Your task to perform on an android device: refresh tabs in the chrome app Image 0: 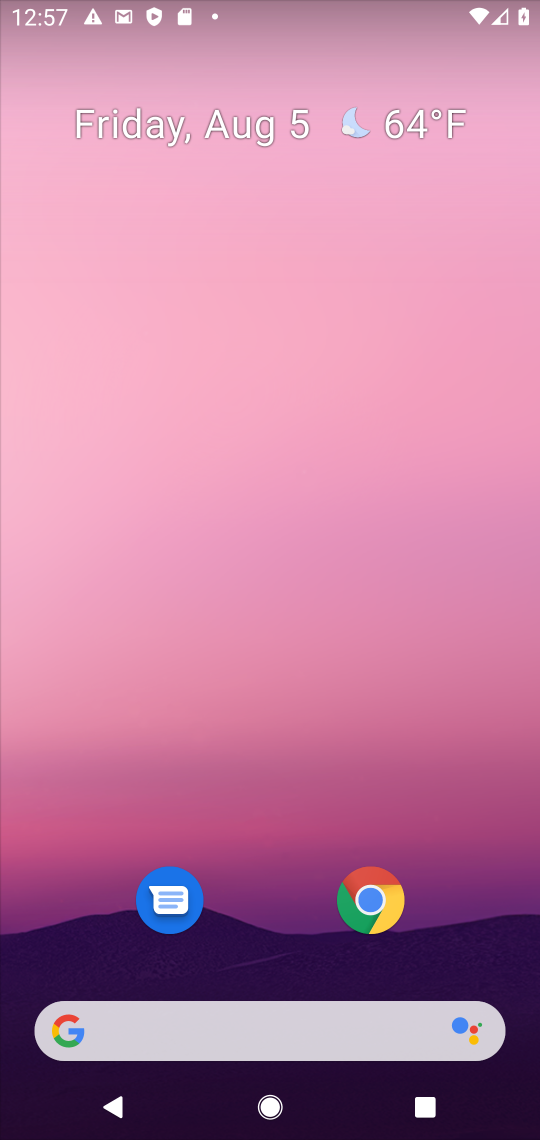
Step 0: press home button
Your task to perform on an android device: refresh tabs in the chrome app Image 1: 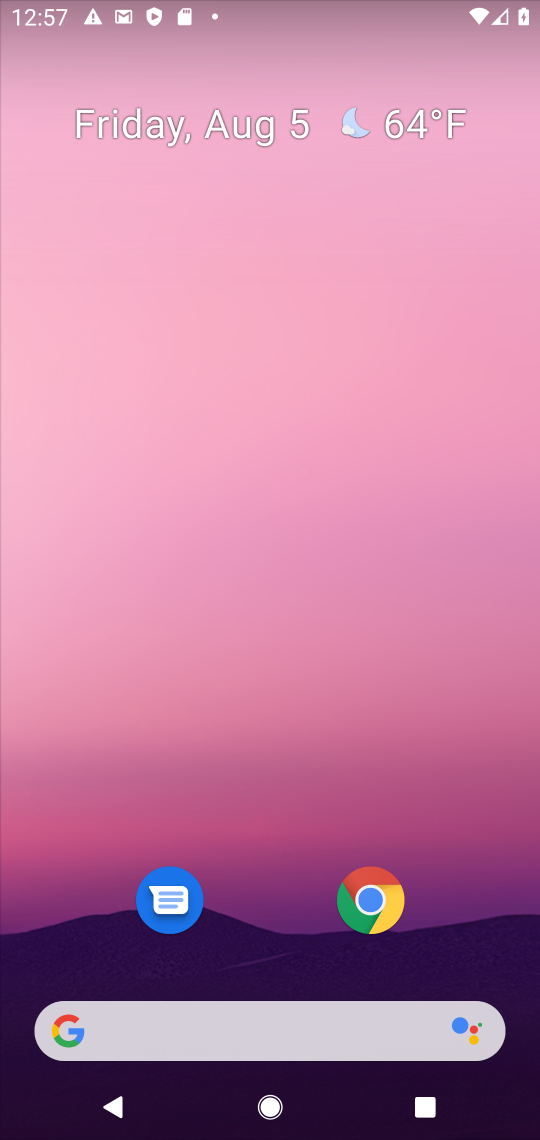
Step 1: drag from (286, 918) to (280, 25)
Your task to perform on an android device: refresh tabs in the chrome app Image 2: 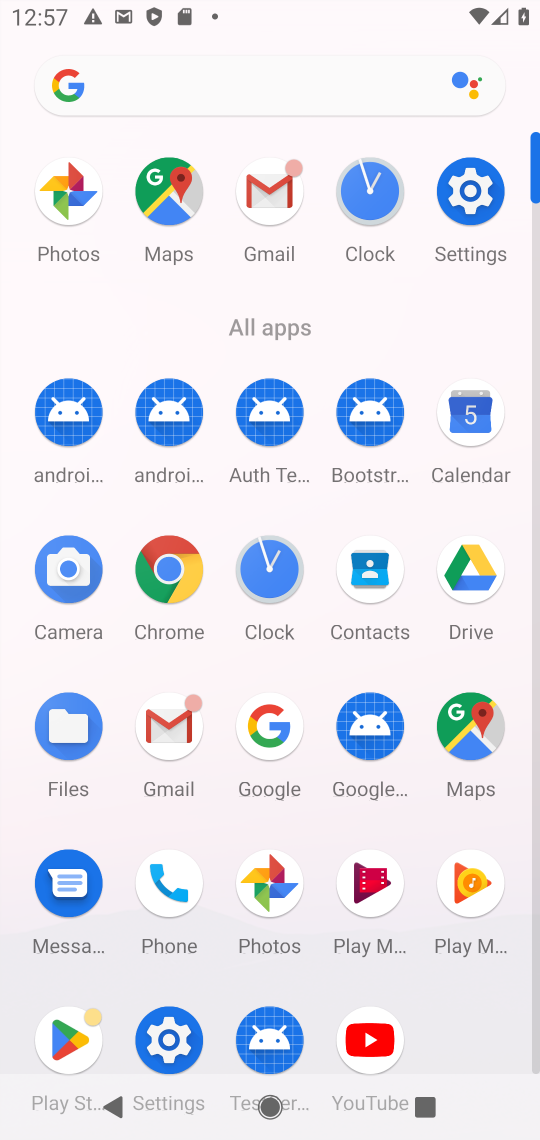
Step 2: click (165, 862)
Your task to perform on an android device: refresh tabs in the chrome app Image 3: 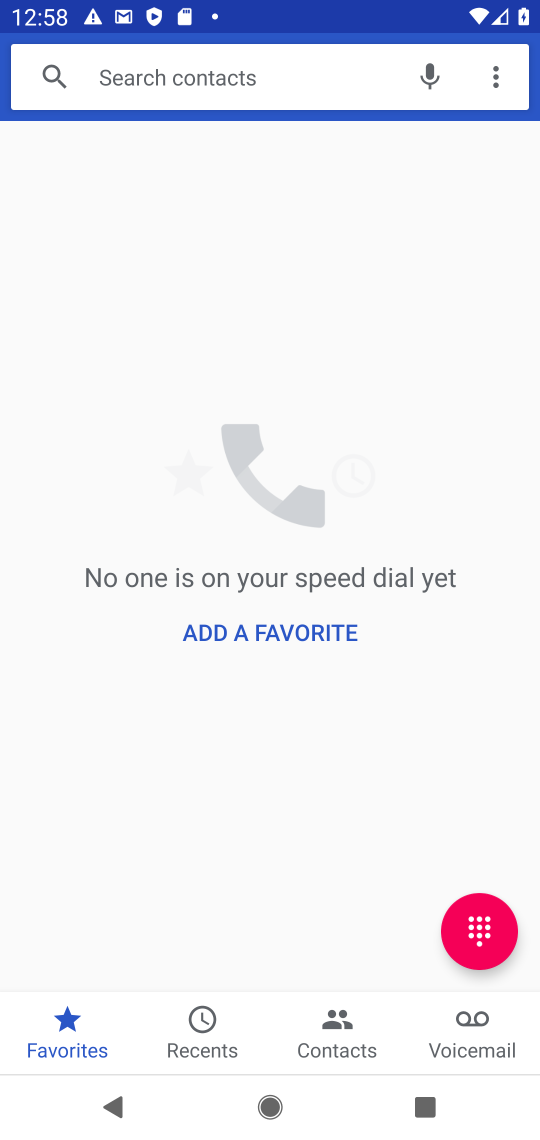
Step 3: press home button
Your task to perform on an android device: refresh tabs in the chrome app Image 4: 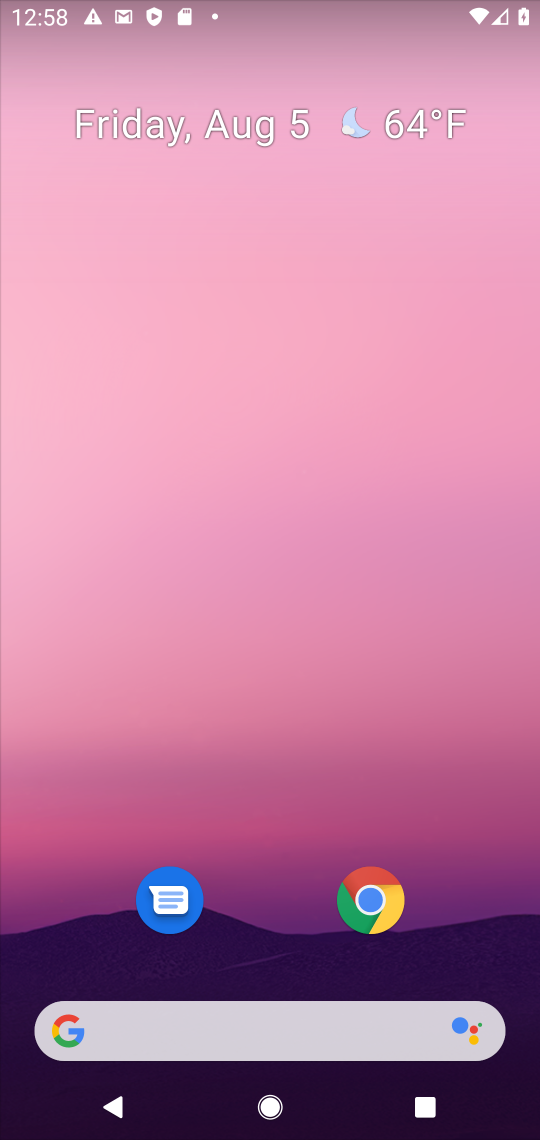
Step 4: drag from (282, 941) to (245, 116)
Your task to perform on an android device: refresh tabs in the chrome app Image 5: 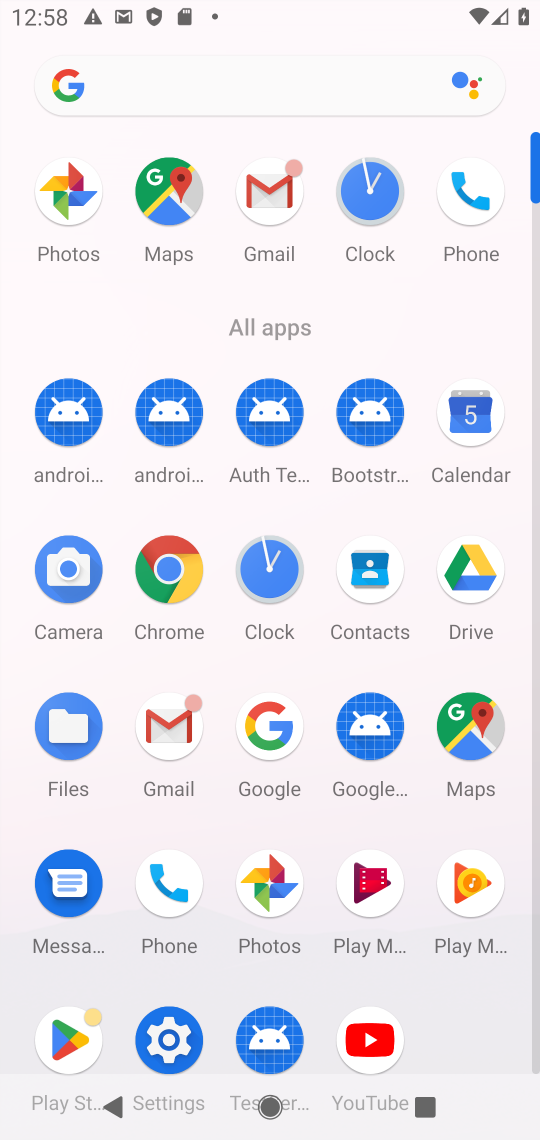
Step 5: click (167, 555)
Your task to perform on an android device: refresh tabs in the chrome app Image 6: 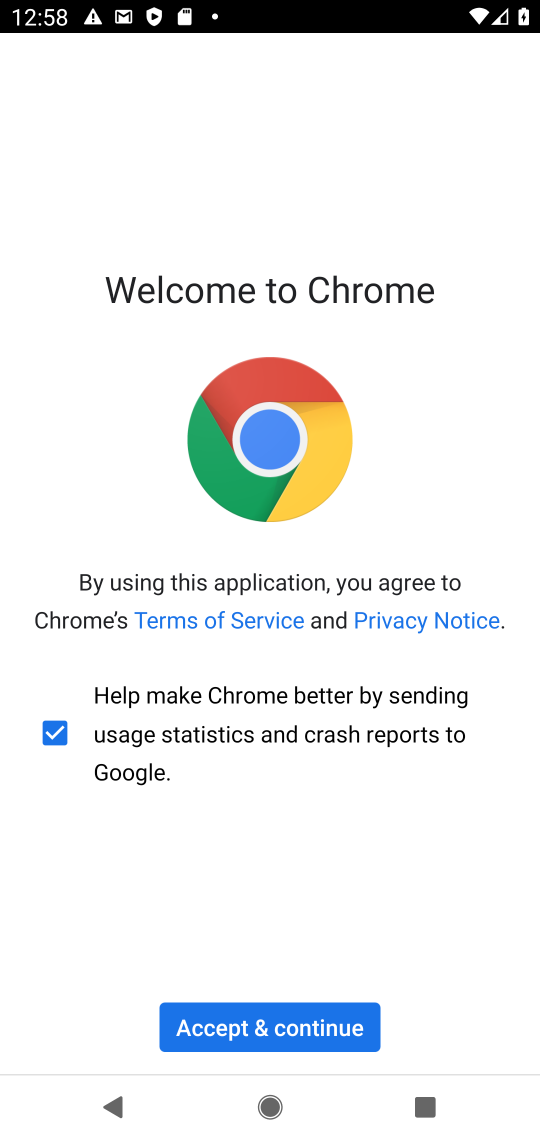
Step 6: click (261, 1021)
Your task to perform on an android device: refresh tabs in the chrome app Image 7: 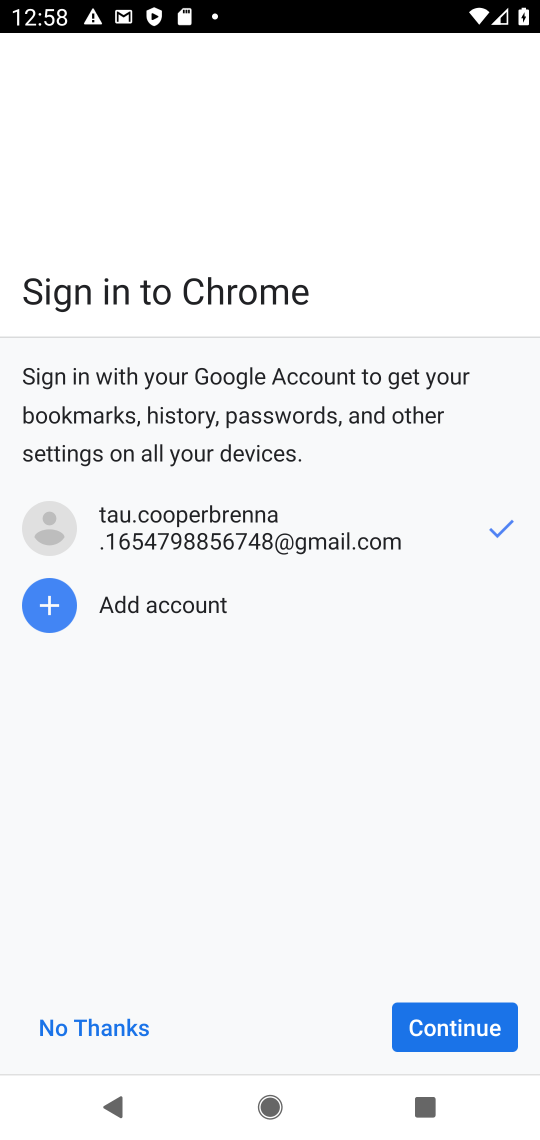
Step 7: click (476, 1019)
Your task to perform on an android device: refresh tabs in the chrome app Image 8: 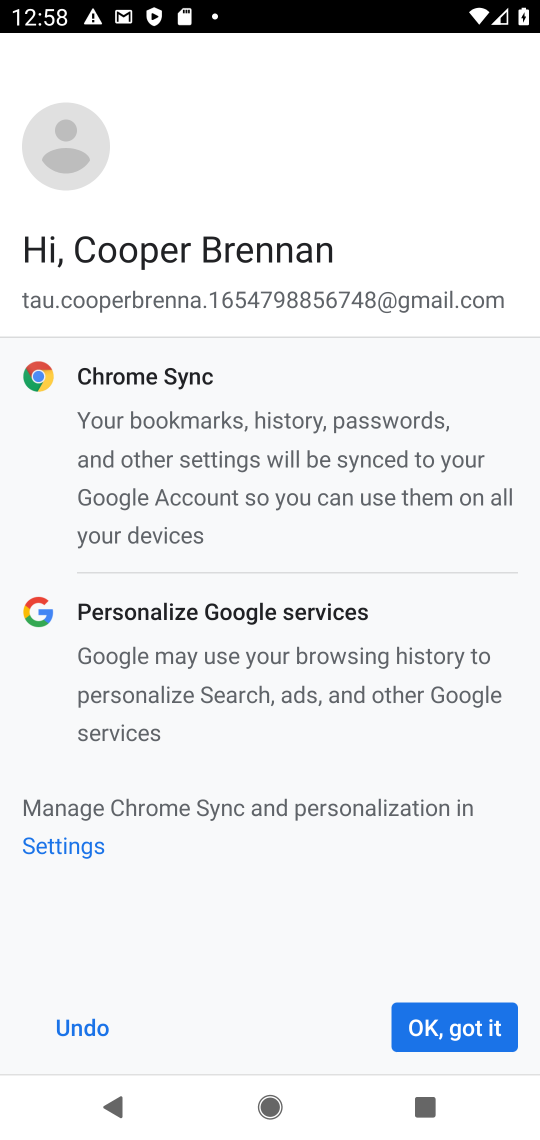
Step 8: click (473, 1028)
Your task to perform on an android device: refresh tabs in the chrome app Image 9: 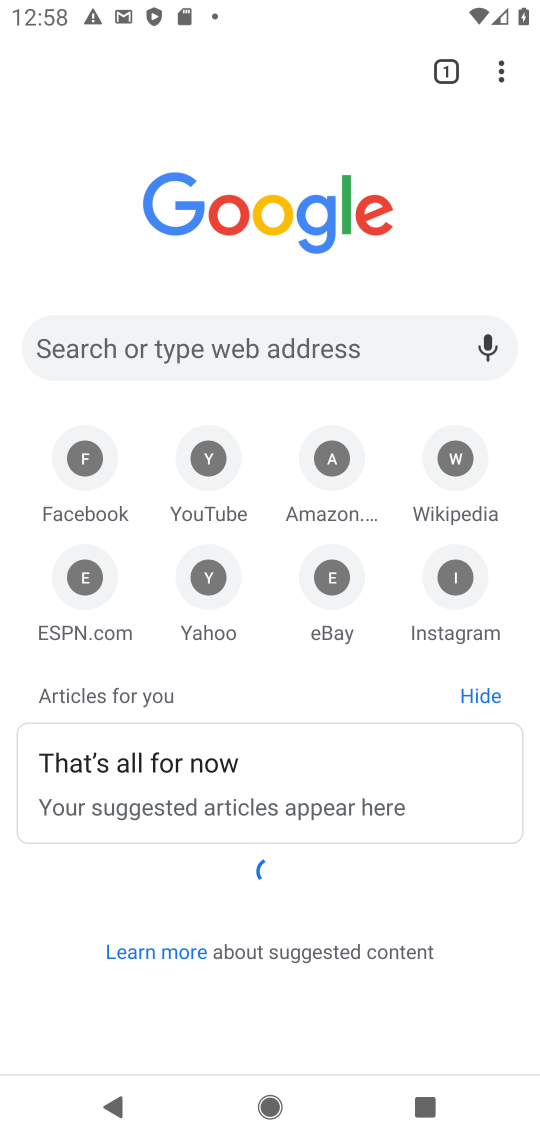
Step 9: click (504, 69)
Your task to perform on an android device: refresh tabs in the chrome app Image 10: 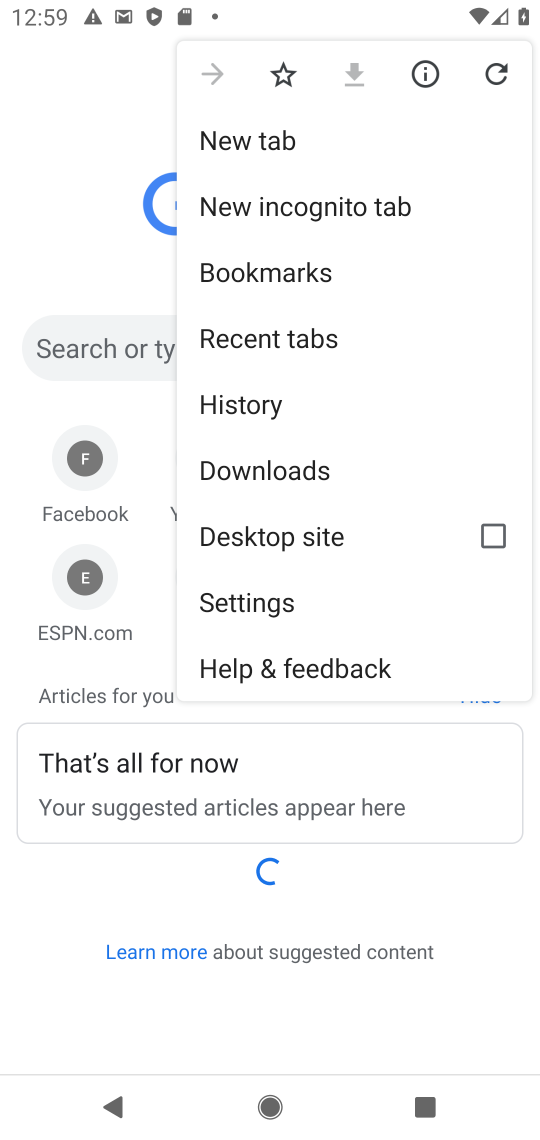
Step 10: click (504, 69)
Your task to perform on an android device: refresh tabs in the chrome app Image 11: 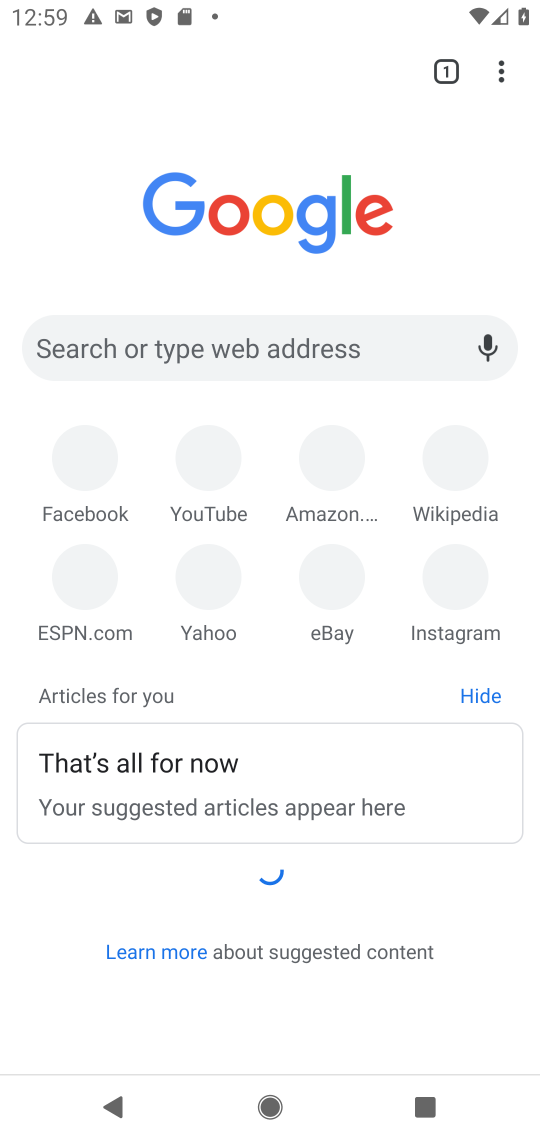
Step 11: task complete